Your task to perform on an android device: search for starred emails in the gmail app Image 0: 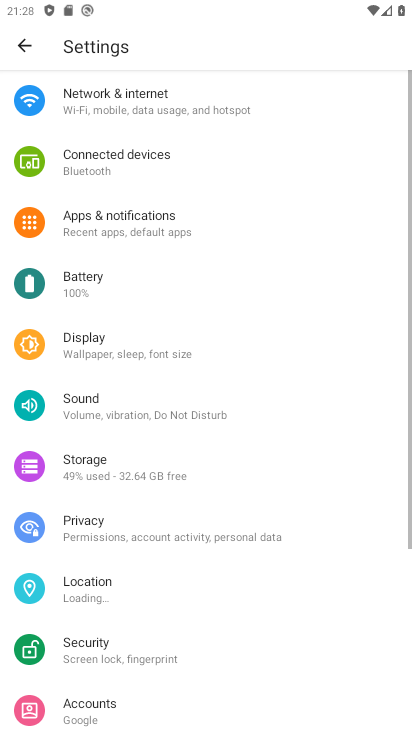
Step 0: press home button
Your task to perform on an android device: search for starred emails in the gmail app Image 1: 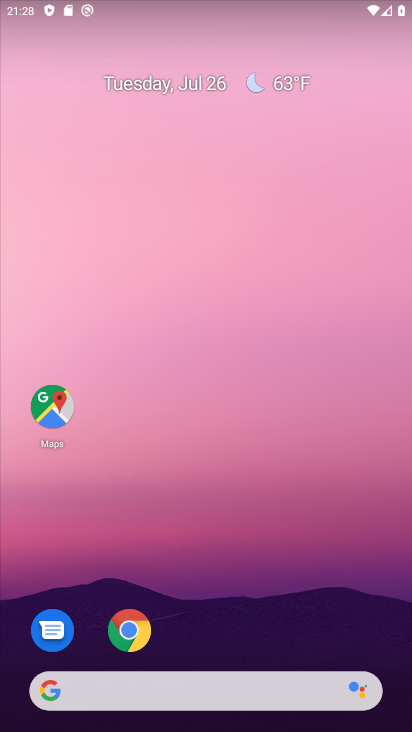
Step 1: drag from (288, 615) to (232, 140)
Your task to perform on an android device: search for starred emails in the gmail app Image 2: 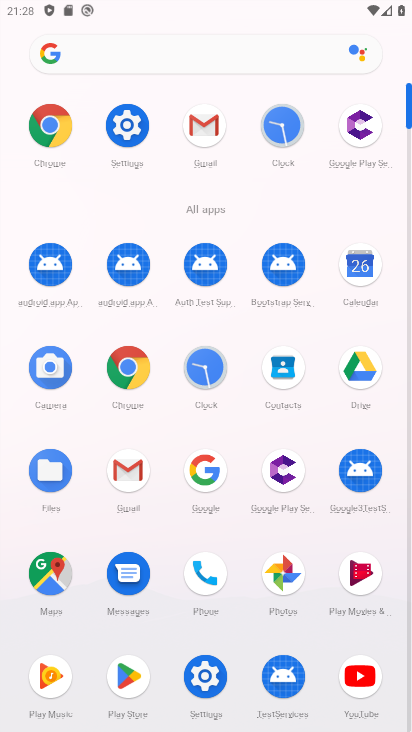
Step 2: click (206, 113)
Your task to perform on an android device: search for starred emails in the gmail app Image 3: 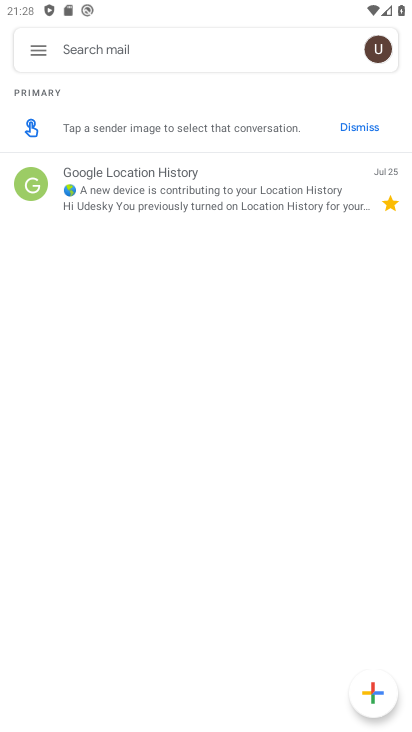
Step 3: click (35, 57)
Your task to perform on an android device: search for starred emails in the gmail app Image 4: 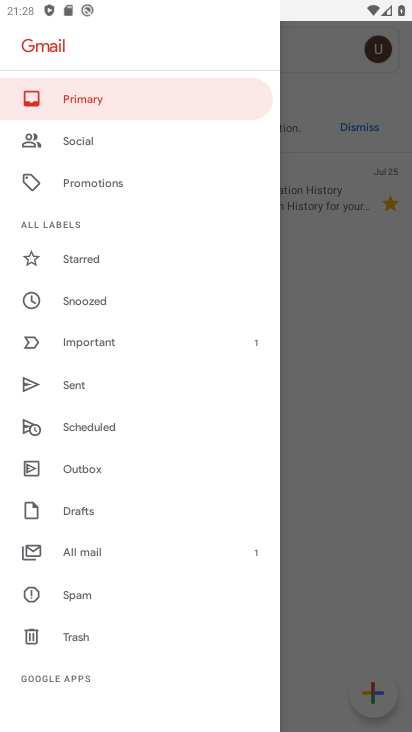
Step 4: click (73, 257)
Your task to perform on an android device: search for starred emails in the gmail app Image 5: 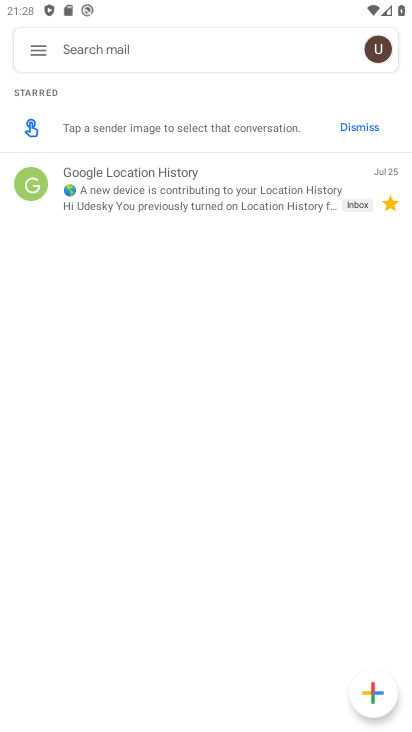
Step 5: task complete